Your task to perform on an android device: change the upload size in google photos Image 0: 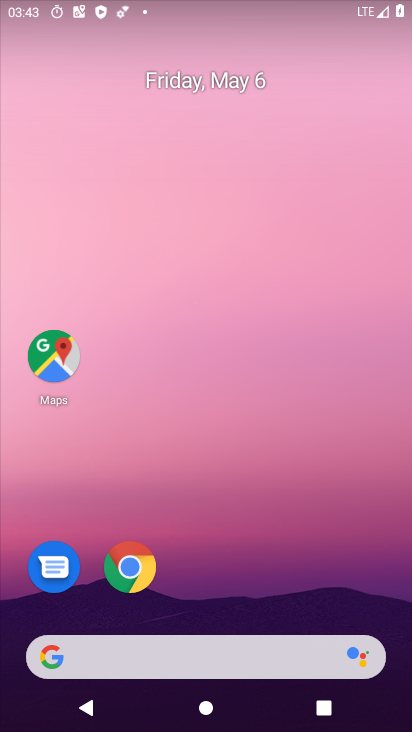
Step 0: drag from (147, 630) to (178, 227)
Your task to perform on an android device: change the upload size in google photos Image 1: 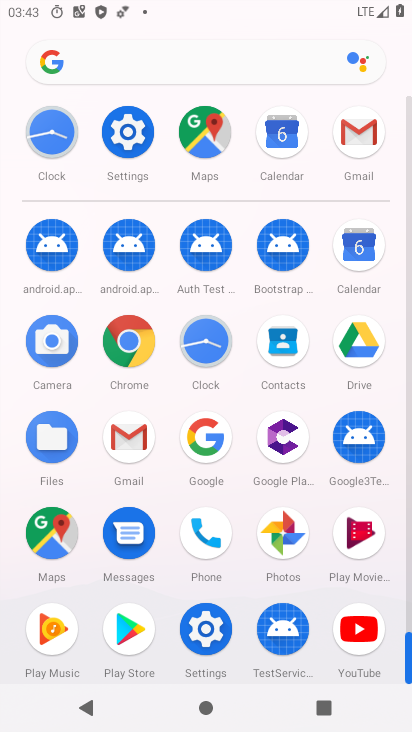
Step 1: click (270, 535)
Your task to perform on an android device: change the upload size in google photos Image 2: 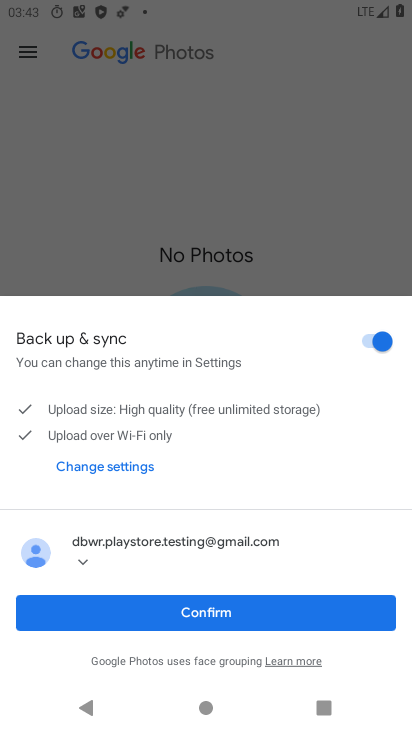
Step 2: click (191, 612)
Your task to perform on an android device: change the upload size in google photos Image 3: 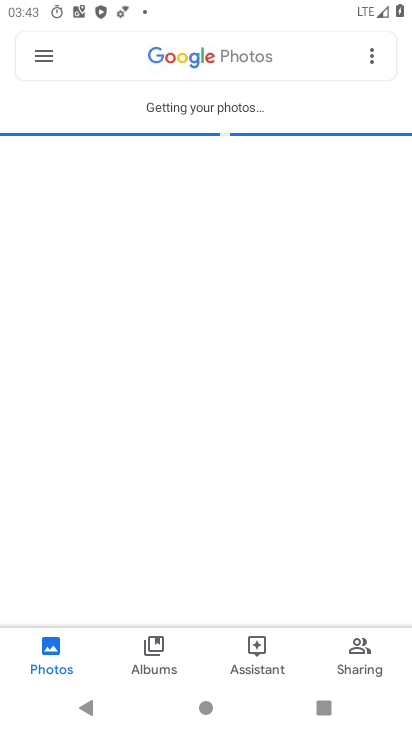
Step 3: click (38, 47)
Your task to perform on an android device: change the upload size in google photos Image 4: 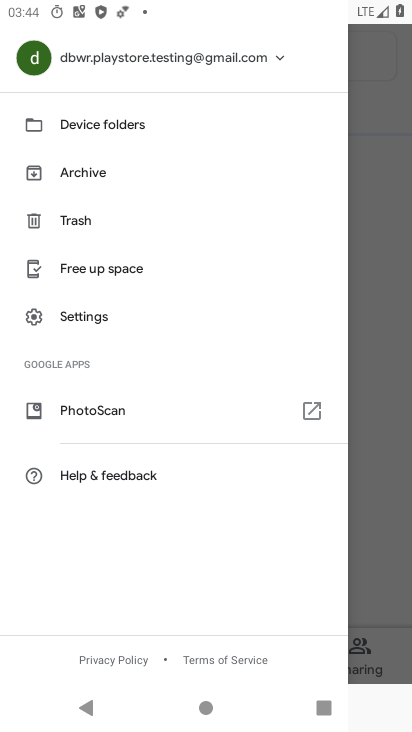
Step 4: click (97, 308)
Your task to perform on an android device: change the upload size in google photos Image 5: 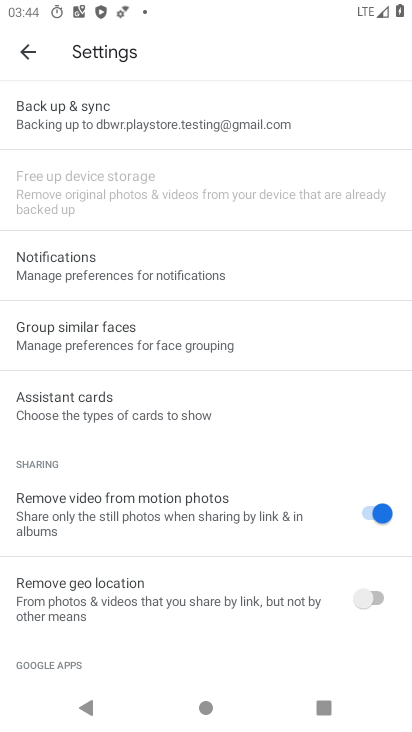
Step 5: click (122, 115)
Your task to perform on an android device: change the upload size in google photos Image 6: 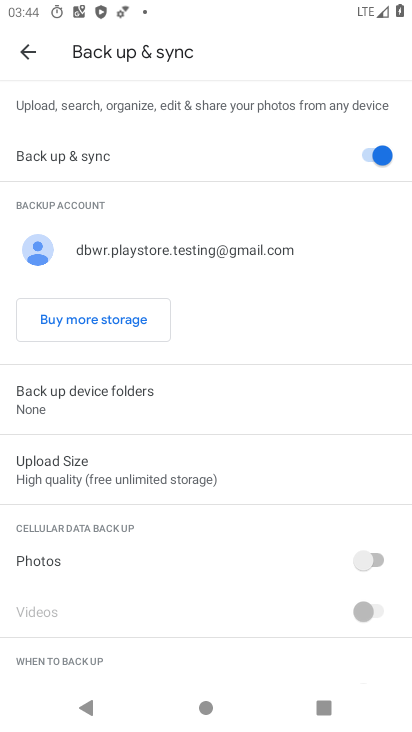
Step 6: click (119, 489)
Your task to perform on an android device: change the upload size in google photos Image 7: 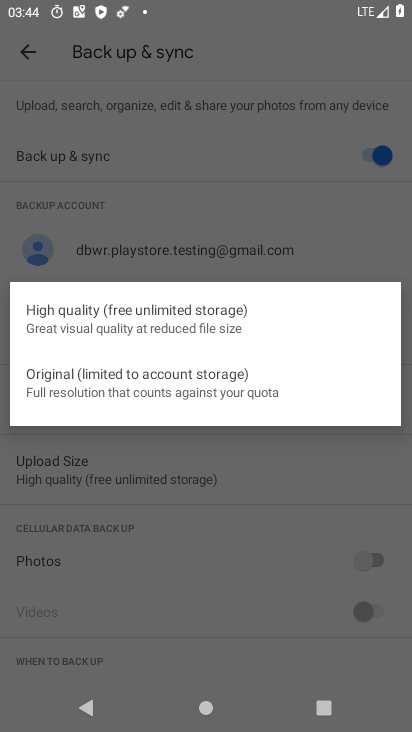
Step 7: click (132, 320)
Your task to perform on an android device: change the upload size in google photos Image 8: 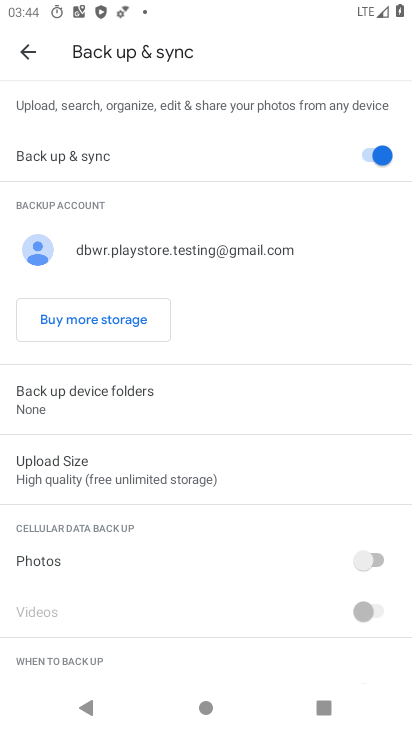
Step 8: task complete